Your task to perform on an android device: Search for Mexican restaurants on Maps Image 0: 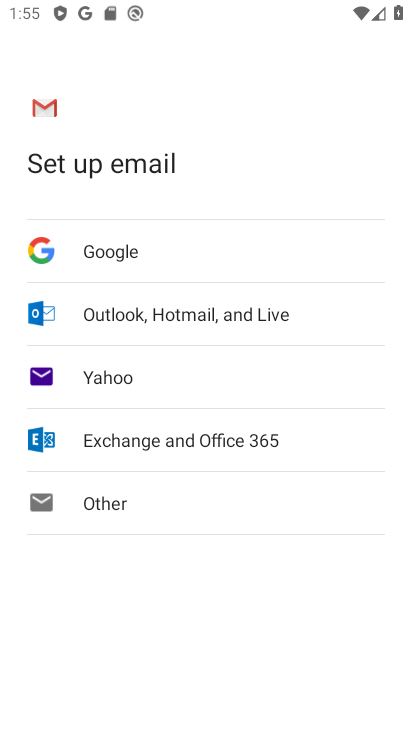
Step 0: press home button
Your task to perform on an android device: Search for Mexican restaurants on Maps Image 1: 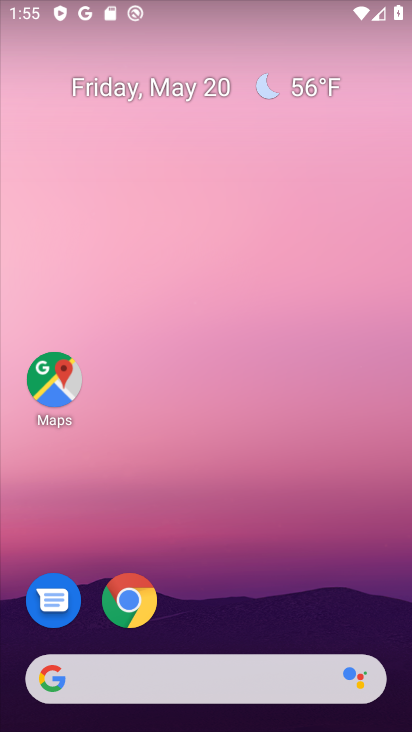
Step 1: drag from (215, 663) to (289, 131)
Your task to perform on an android device: Search for Mexican restaurants on Maps Image 2: 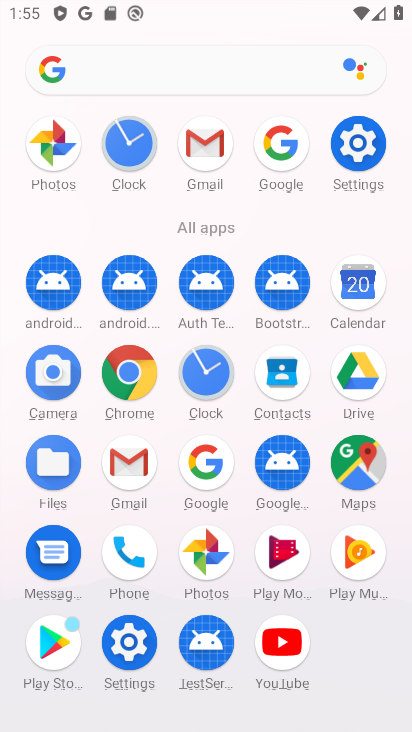
Step 2: click (355, 472)
Your task to perform on an android device: Search for Mexican restaurants on Maps Image 3: 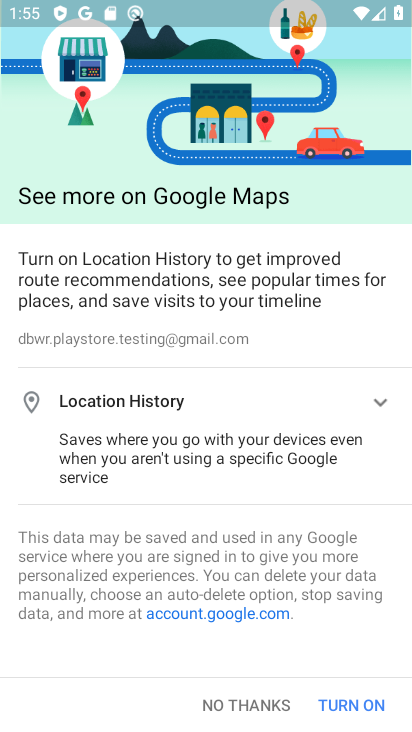
Step 3: click (366, 710)
Your task to perform on an android device: Search for Mexican restaurants on Maps Image 4: 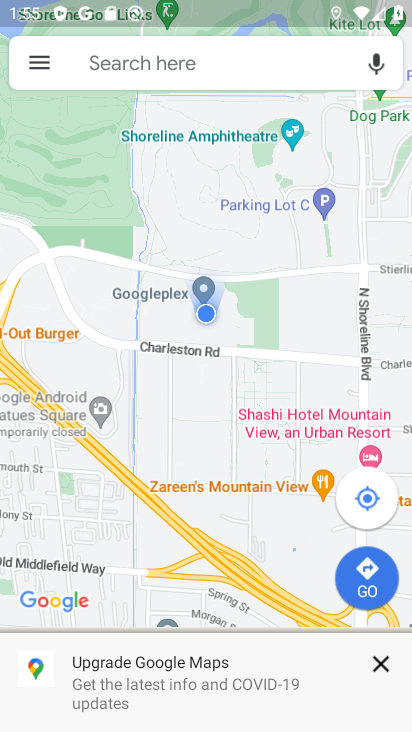
Step 4: click (266, 67)
Your task to perform on an android device: Search for Mexican restaurants on Maps Image 5: 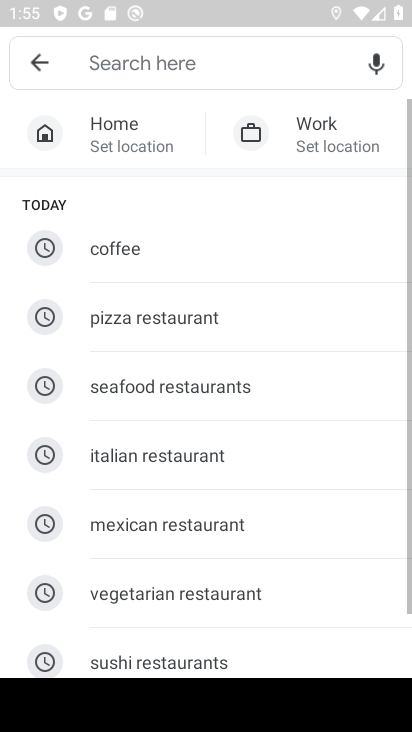
Step 5: click (191, 526)
Your task to perform on an android device: Search for Mexican restaurants on Maps Image 6: 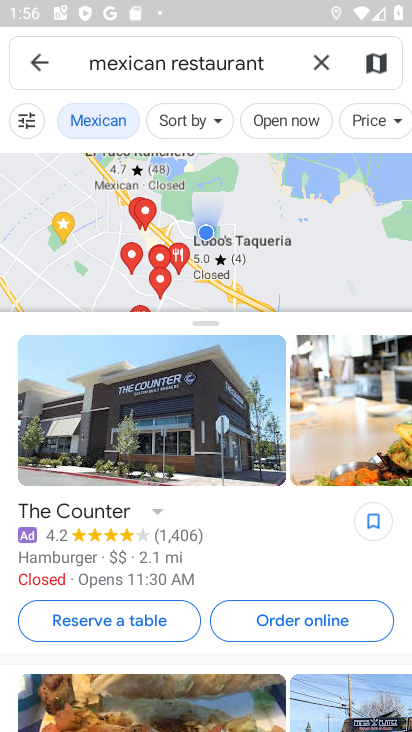
Step 6: task complete